Your task to perform on an android device: Open Wikipedia Image 0: 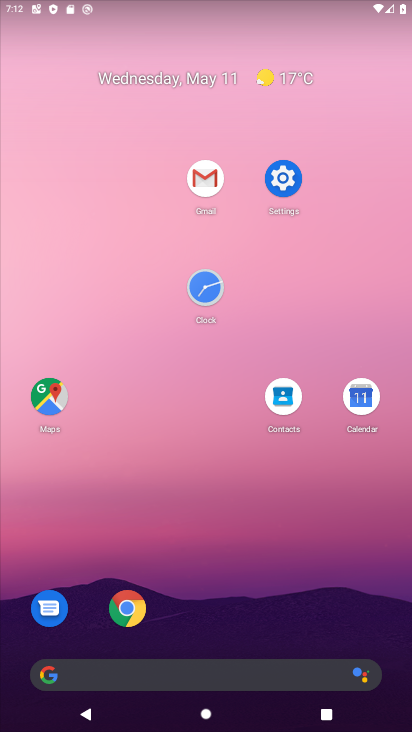
Step 0: click (124, 628)
Your task to perform on an android device: Open Wikipedia Image 1: 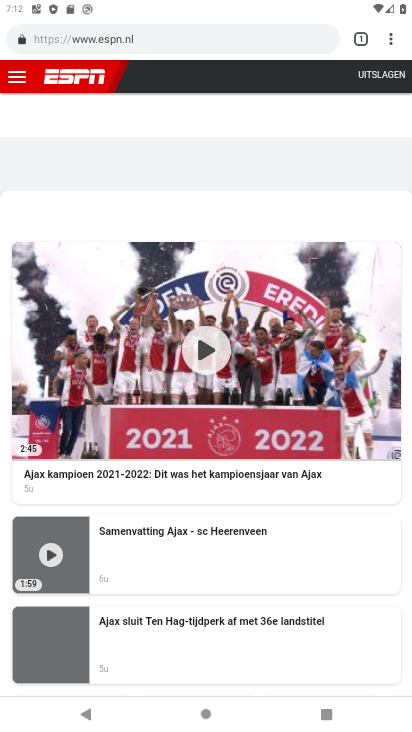
Step 1: click (249, 40)
Your task to perform on an android device: Open Wikipedia Image 2: 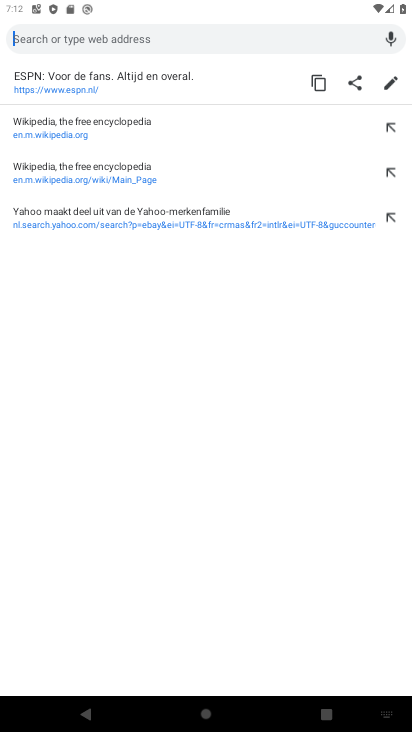
Step 2: click (129, 140)
Your task to perform on an android device: Open Wikipedia Image 3: 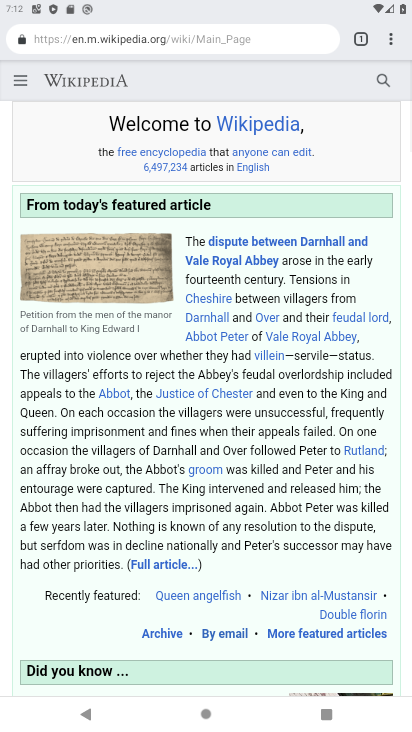
Step 3: task complete